Your task to perform on an android device: Open display settings Image 0: 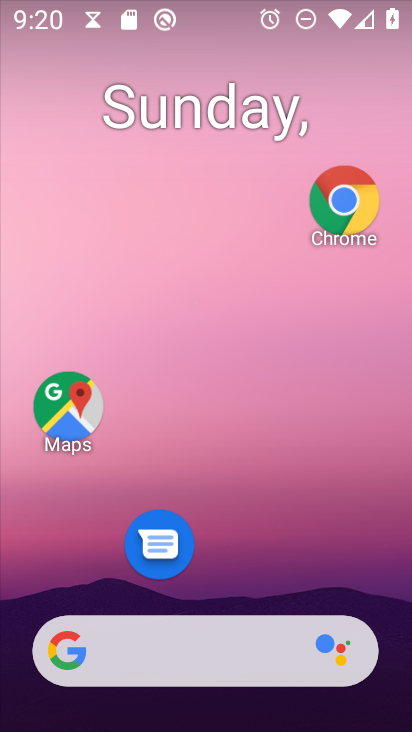
Step 0: drag from (259, 576) to (269, 27)
Your task to perform on an android device: Open display settings Image 1: 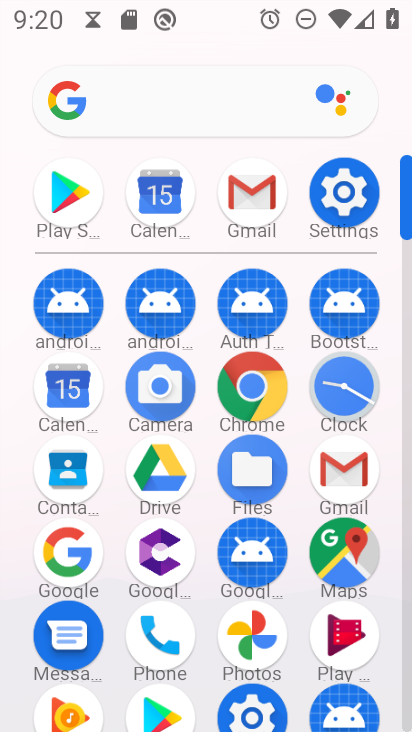
Step 1: click (355, 191)
Your task to perform on an android device: Open display settings Image 2: 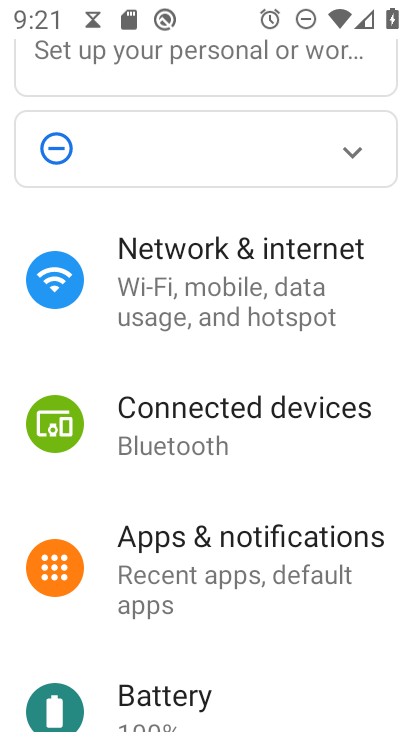
Step 2: drag from (224, 621) to (237, 163)
Your task to perform on an android device: Open display settings Image 3: 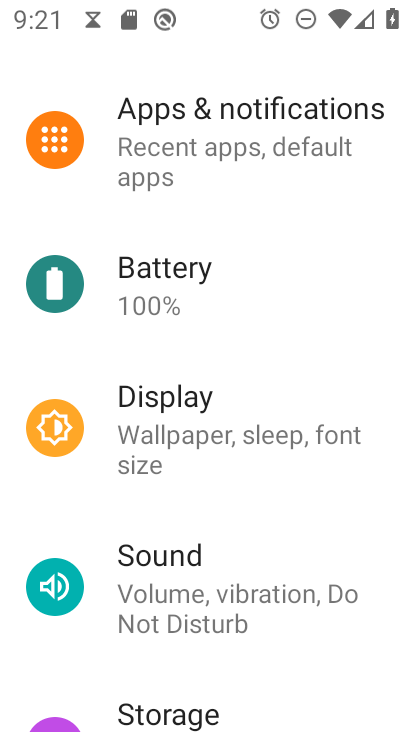
Step 3: click (276, 435)
Your task to perform on an android device: Open display settings Image 4: 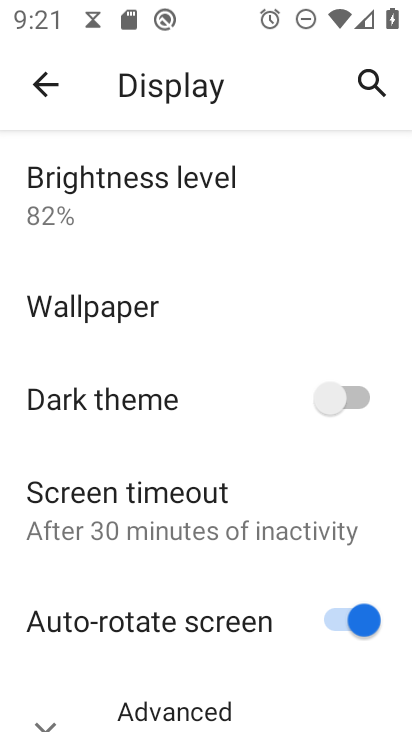
Step 4: task complete